Your task to perform on an android device: turn smart compose on in the gmail app Image 0: 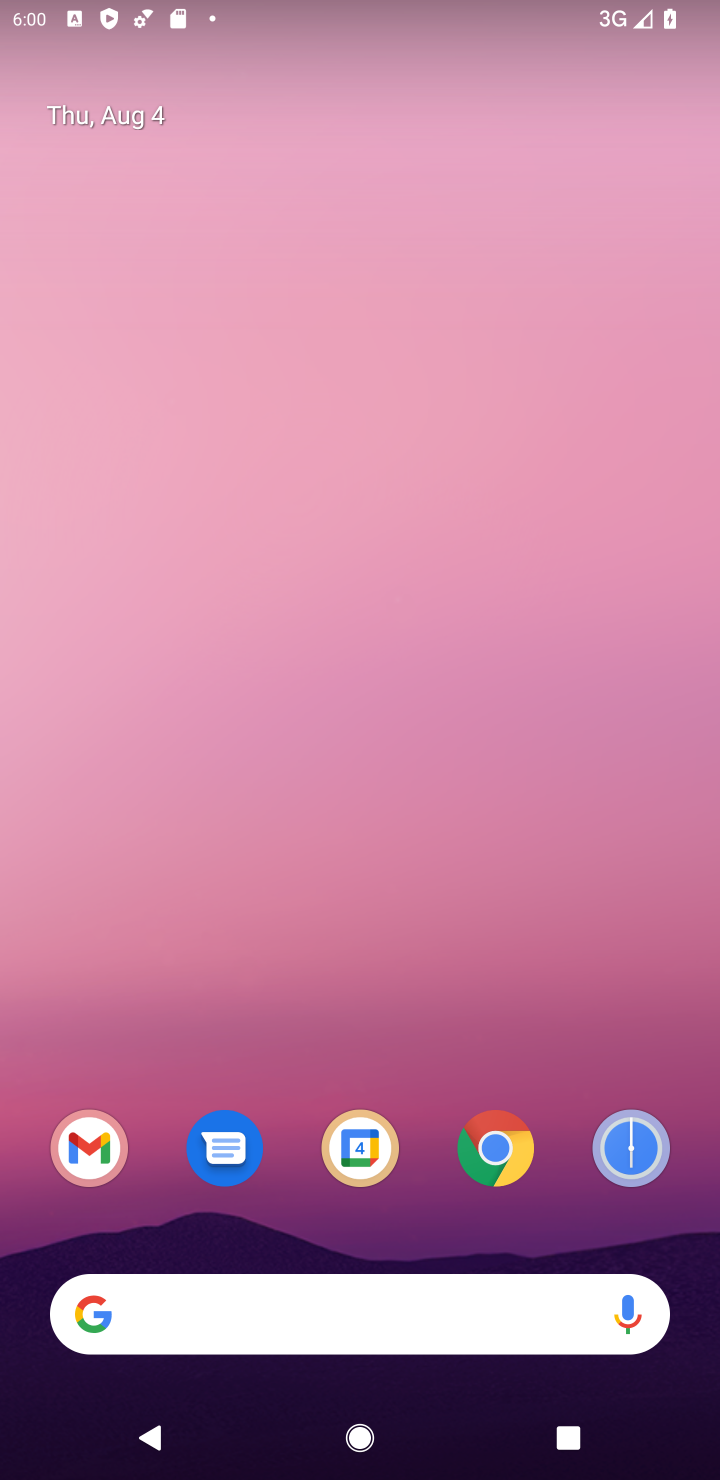
Step 0: click (89, 1153)
Your task to perform on an android device: turn smart compose on in the gmail app Image 1: 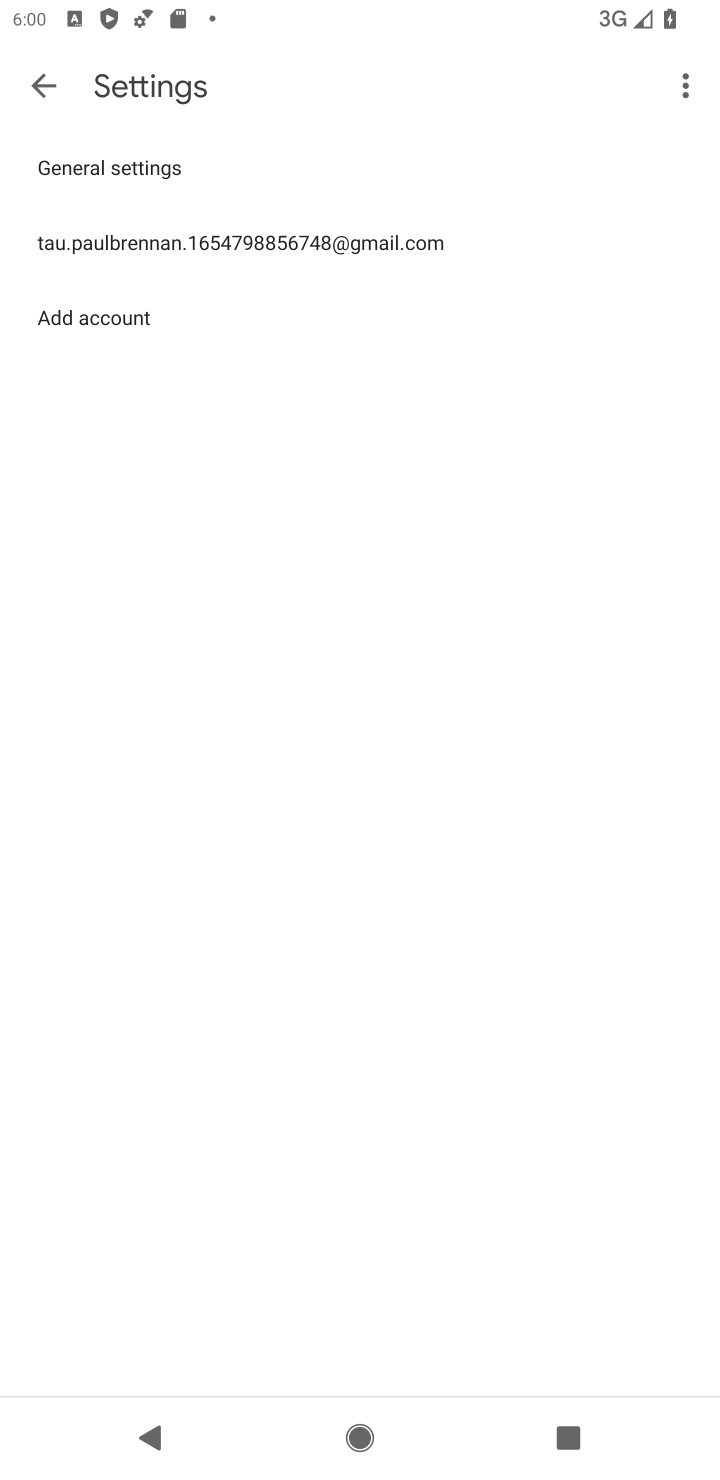
Step 1: click (228, 229)
Your task to perform on an android device: turn smart compose on in the gmail app Image 2: 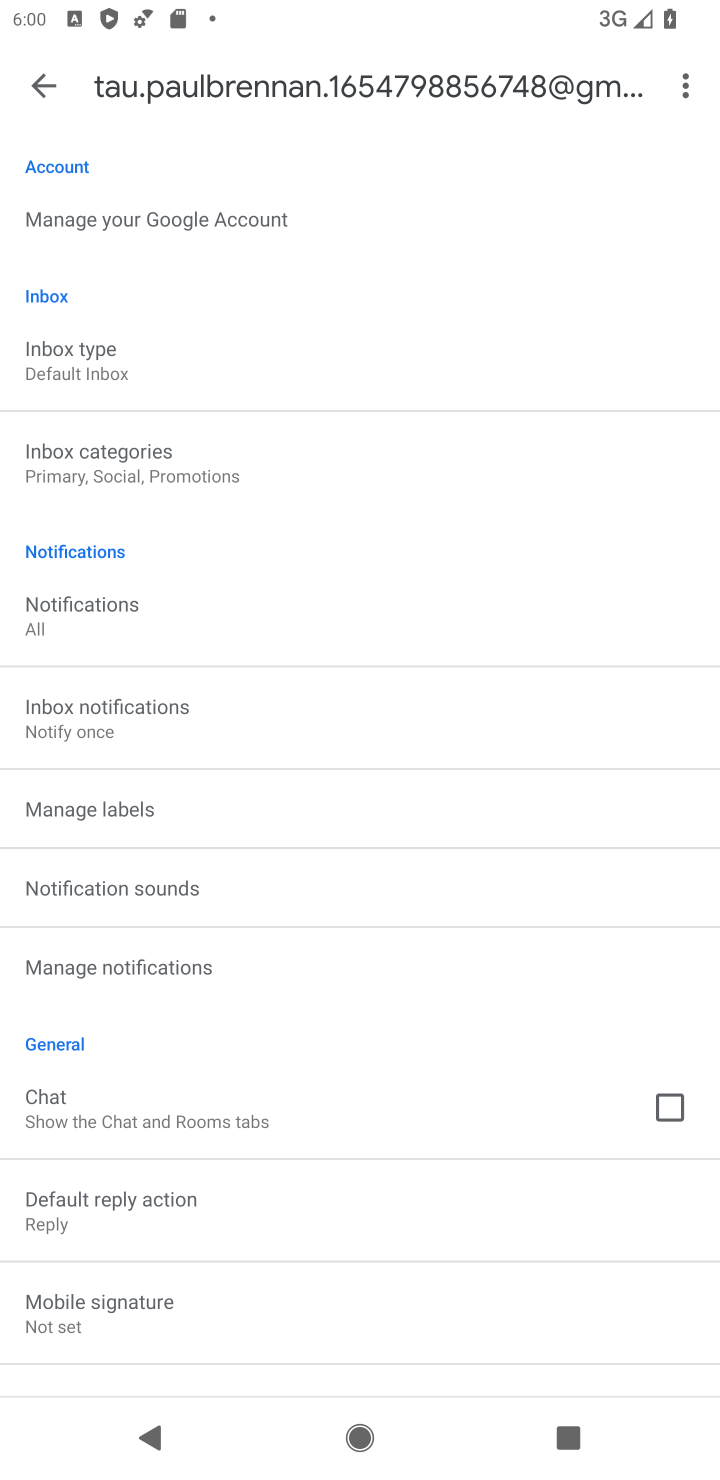
Step 2: task complete